Your task to perform on an android device: change text size in settings app Image 0: 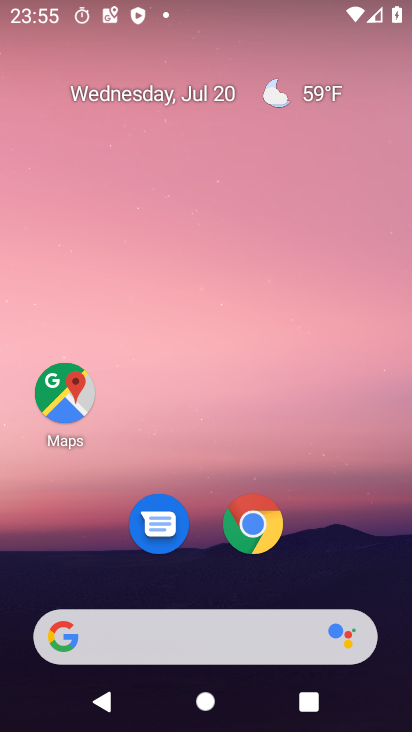
Step 0: press home button
Your task to perform on an android device: change text size in settings app Image 1: 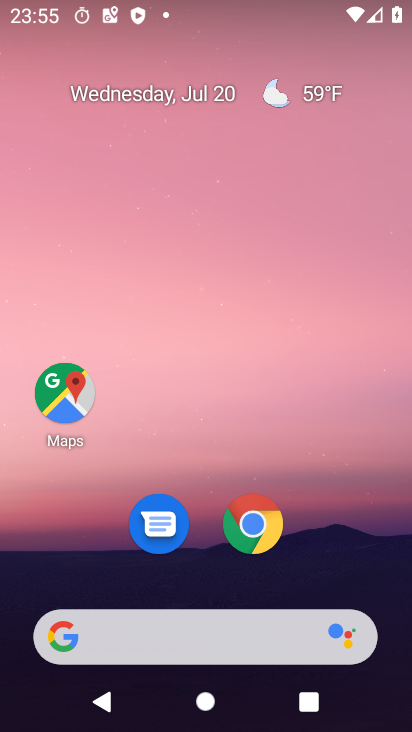
Step 1: drag from (238, 641) to (292, 15)
Your task to perform on an android device: change text size in settings app Image 2: 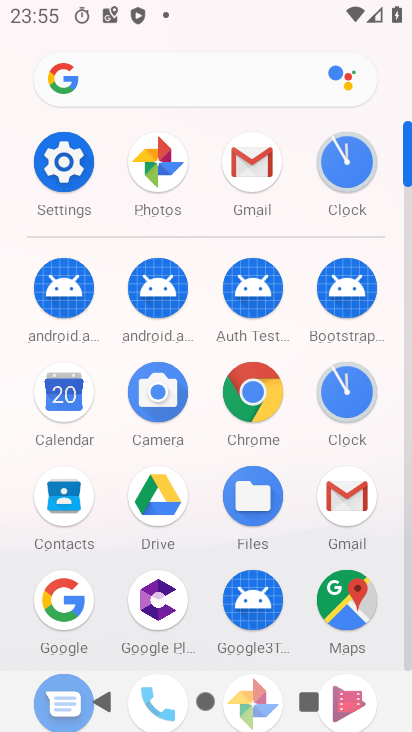
Step 2: click (63, 163)
Your task to perform on an android device: change text size in settings app Image 3: 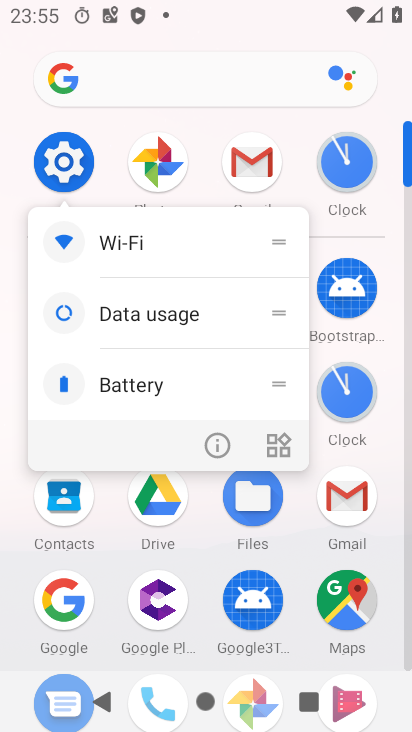
Step 3: click (63, 162)
Your task to perform on an android device: change text size in settings app Image 4: 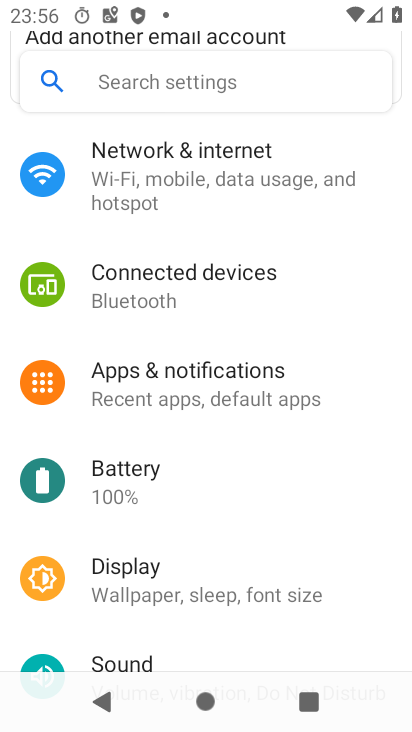
Step 4: click (214, 587)
Your task to perform on an android device: change text size in settings app Image 5: 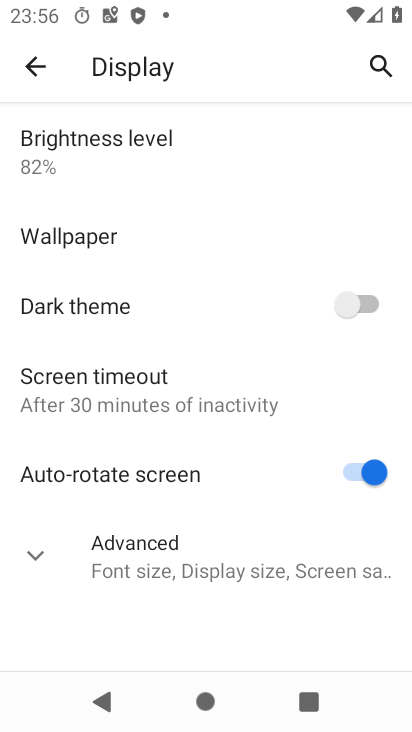
Step 5: click (169, 569)
Your task to perform on an android device: change text size in settings app Image 6: 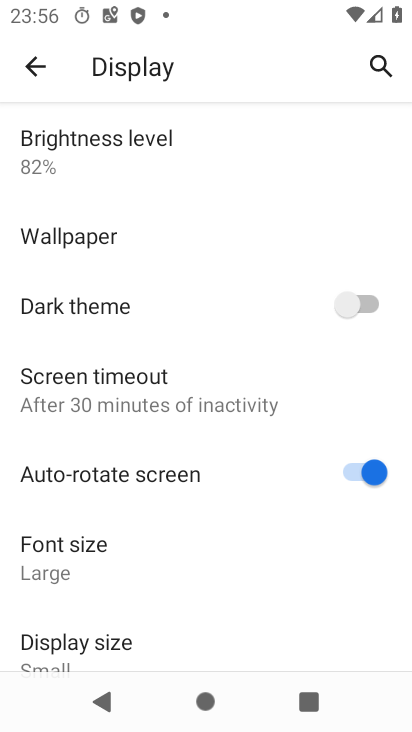
Step 6: click (82, 558)
Your task to perform on an android device: change text size in settings app Image 7: 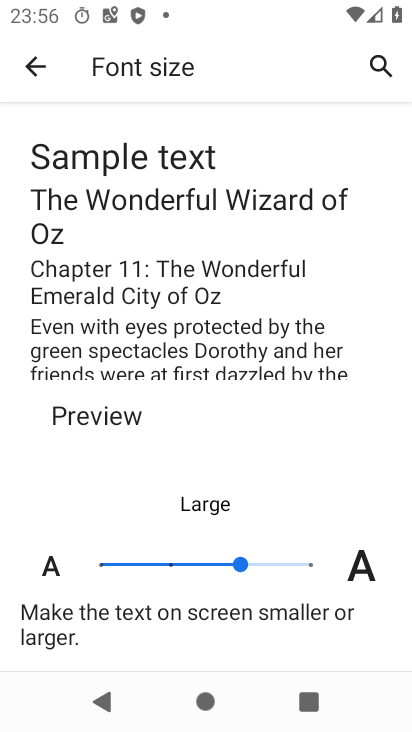
Step 7: click (168, 558)
Your task to perform on an android device: change text size in settings app Image 8: 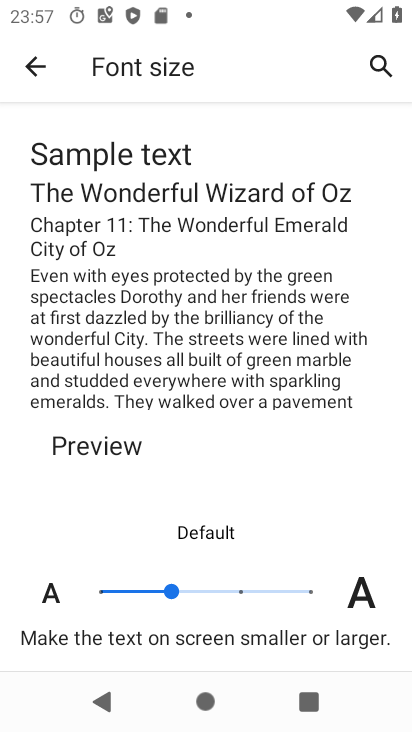
Step 8: task complete